Your task to perform on an android device: check storage Image 0: 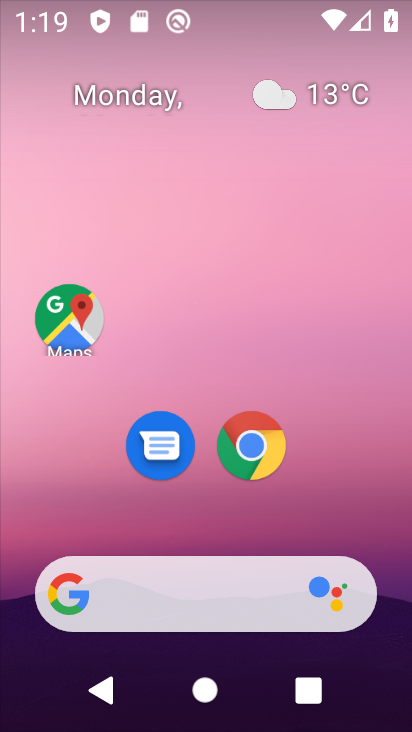
Step 0: click (173, 48)
Your task to perform on an android device: check storage Image 1: 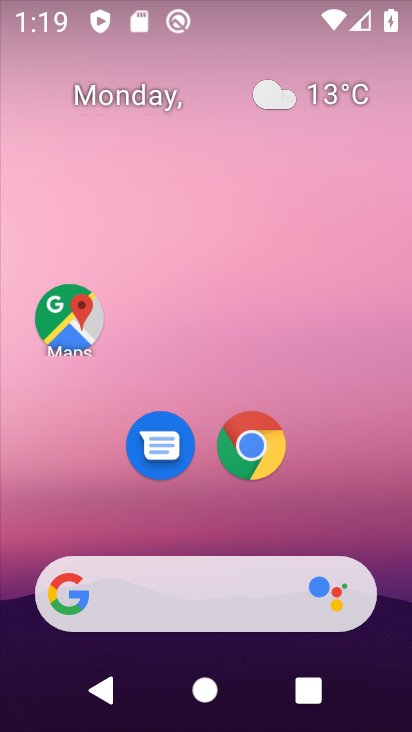
Step 1: drag from (242, 538) to (267, 124)
Your task to perform on an android device: check storage Image 2: 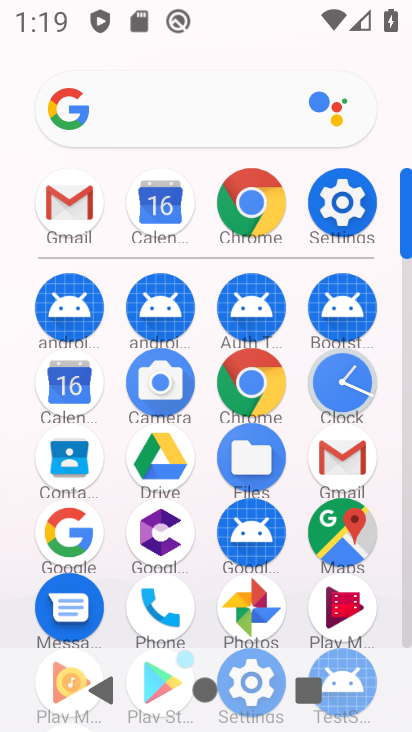
Step 2: click (329, 199)
Your task to perform on an android device: check storage Image 3: 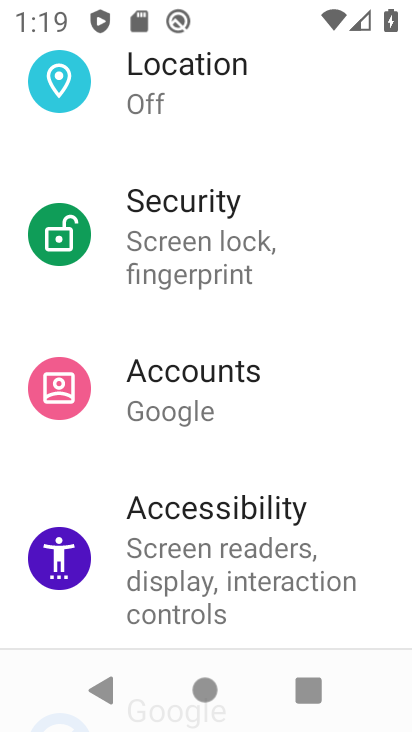
Step 3: drag from (315, 188) to (243, 519)
Your task to perform on an android device: check storage Image 4: 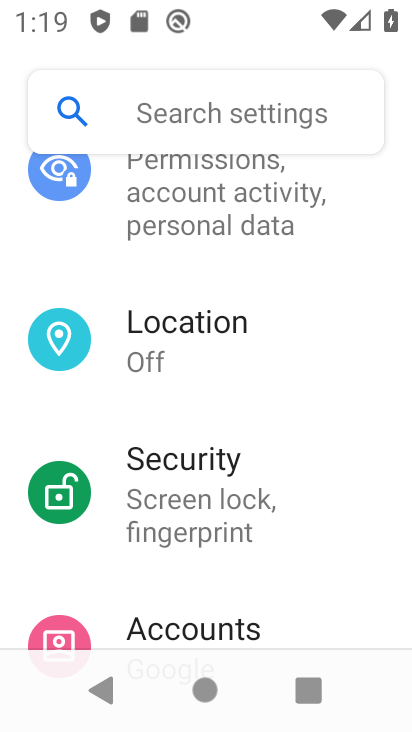
Step 4: drag from (268, 333) to (227, 539)
Your task to perform on an android device: check storage Image 5: 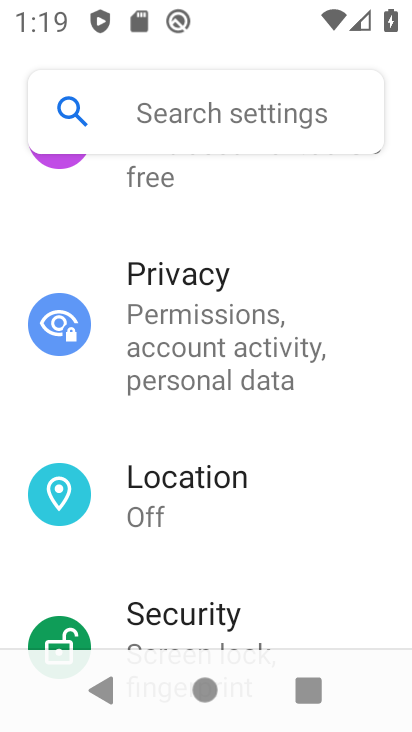
Step 5: drag from (134, 275) to (139, 538)
Your task to perform on an android device: check storage Image 6: 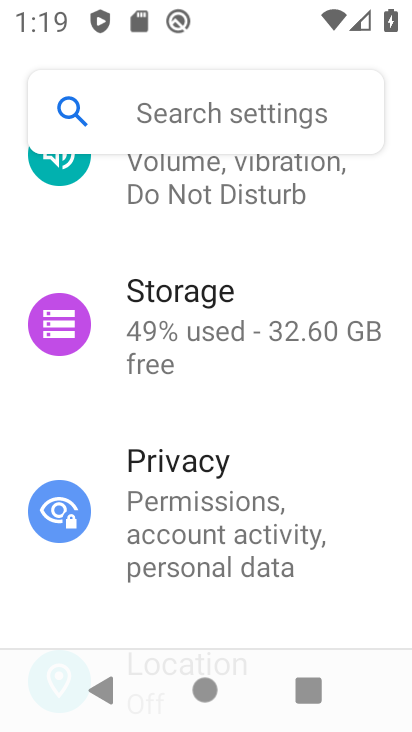
Step 6: click (144, 350)
Your task to perform on an android device: check storage Image 7: 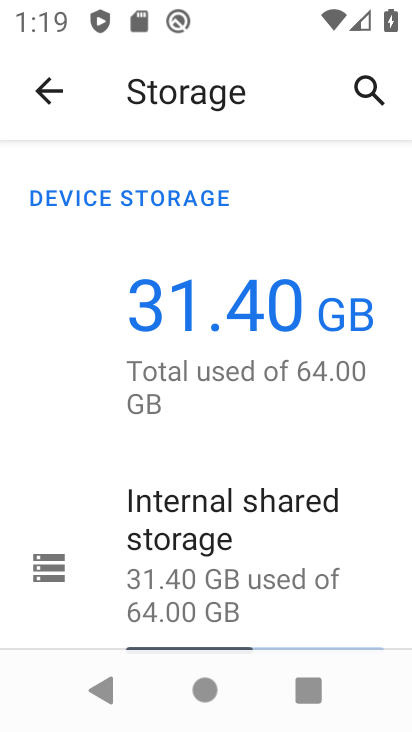
Step 7: task complete